Your task to perform on an android device: install app "Google Calendar" Image 0: 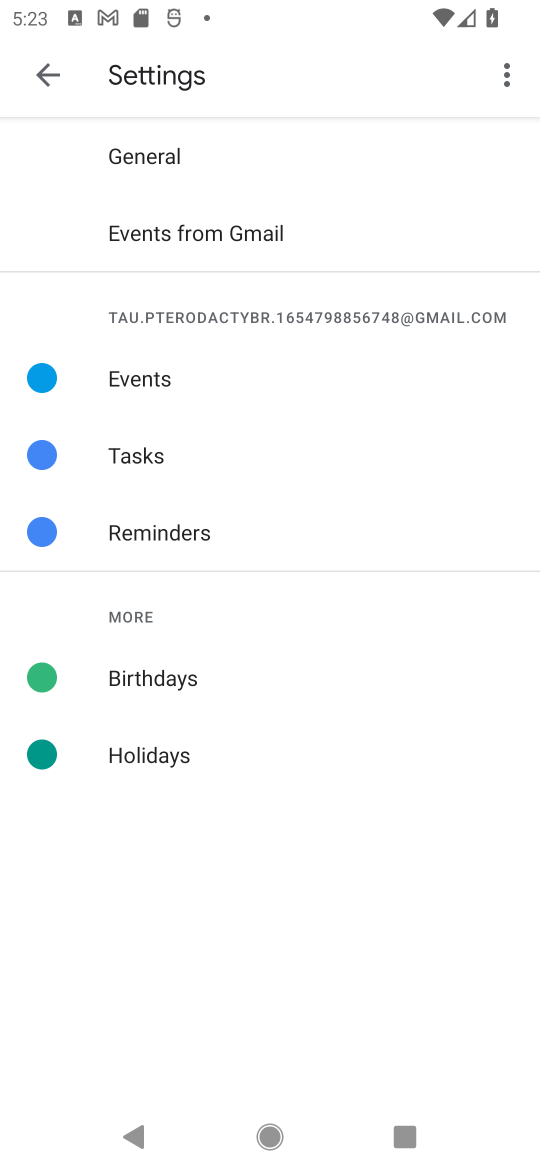
Step 0: press home button
Your task to perform on an android device: install app "Google Calendar" Image 1: 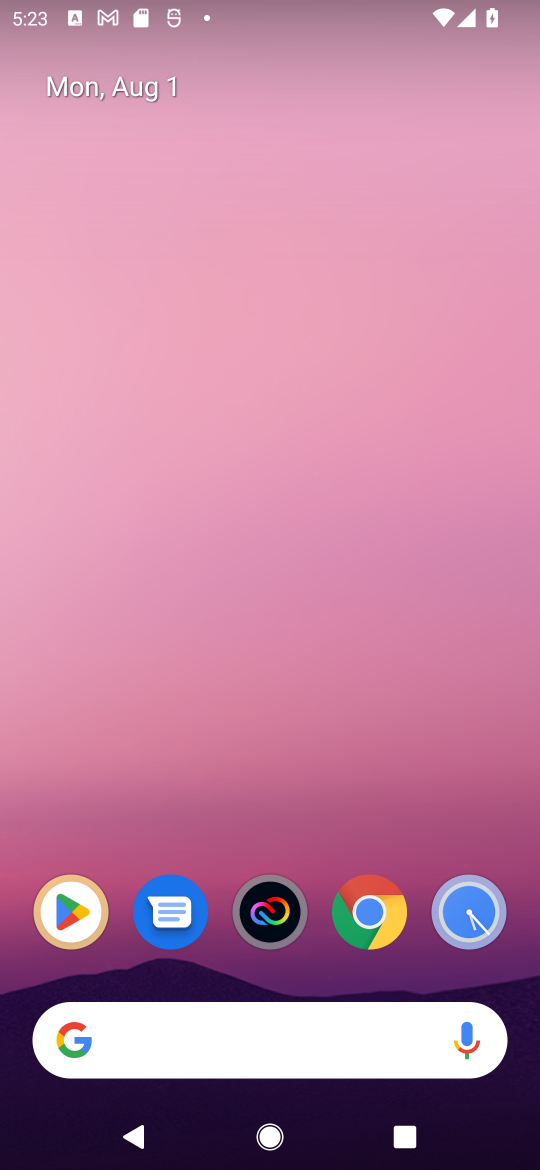
Step 1: drag from (315, 922) to (324, 182)
Your task to perform on an android device: install app "Google Calendar" Image 2: 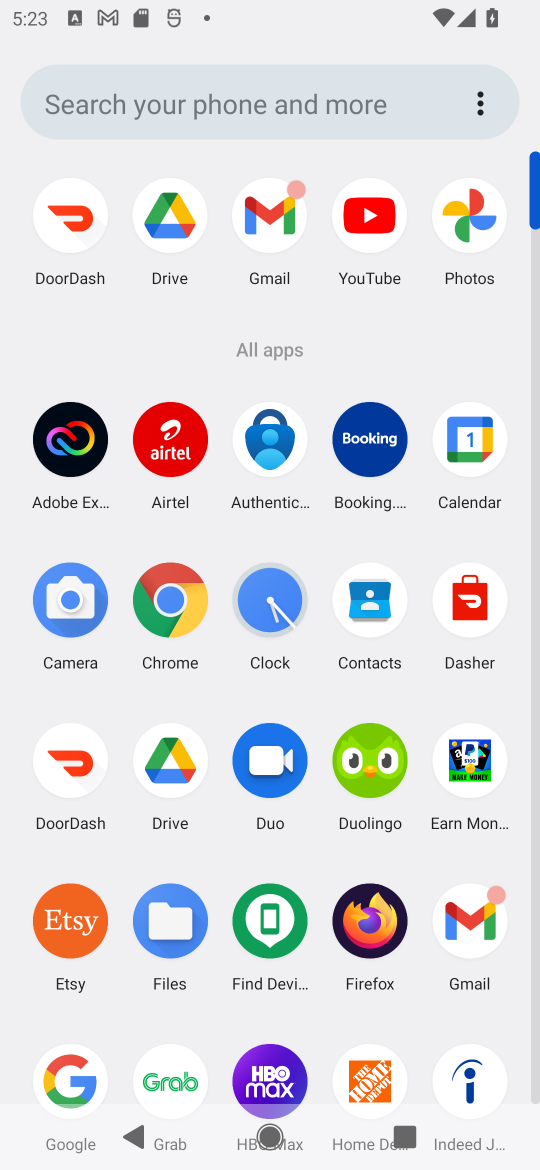
Step 2: click (473, 453)
Your task to perform on an android device: install app "Google Calendar" Image 3: 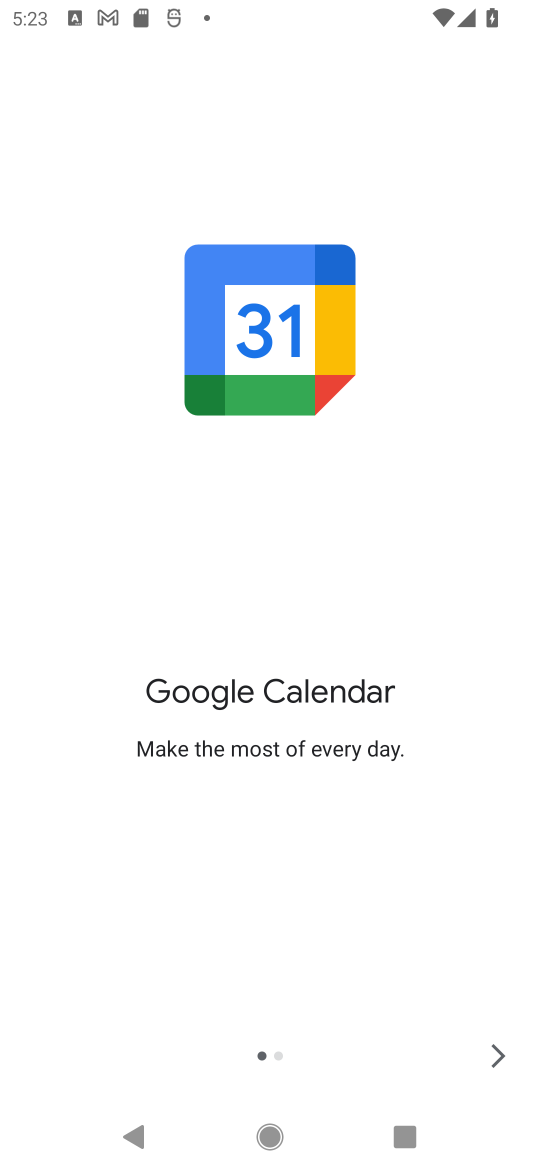
Step 3: task complete